Your task to perform on an android device: What is the recent news? Image 0: 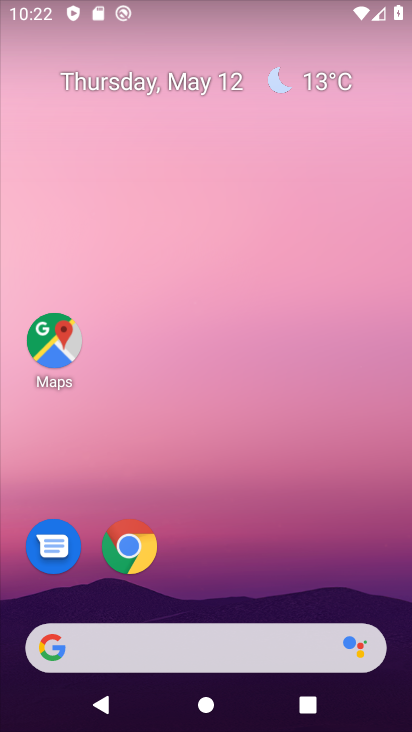
Step 0: drag from (265, 677) to (268, 176)
Your task to perform on an android device: What is the recent news? Image 1: 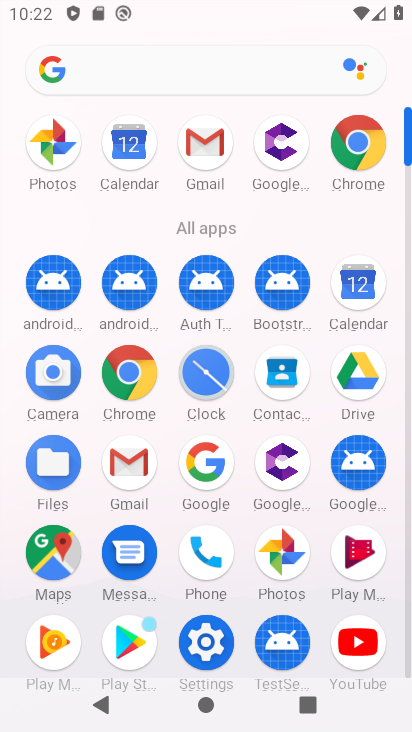
Step 1: click (137, 59)
Your task to perform on an android device: What is the recent news? Image 2: 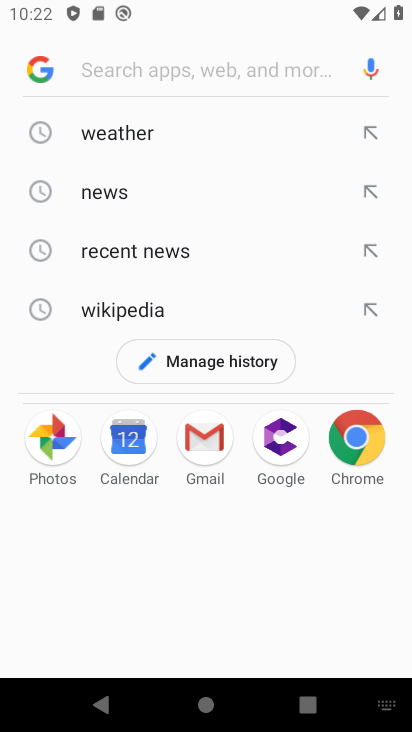
Step 2: click (136, 250)
Your task to perform on an android device: What is the recent news? Image 3: 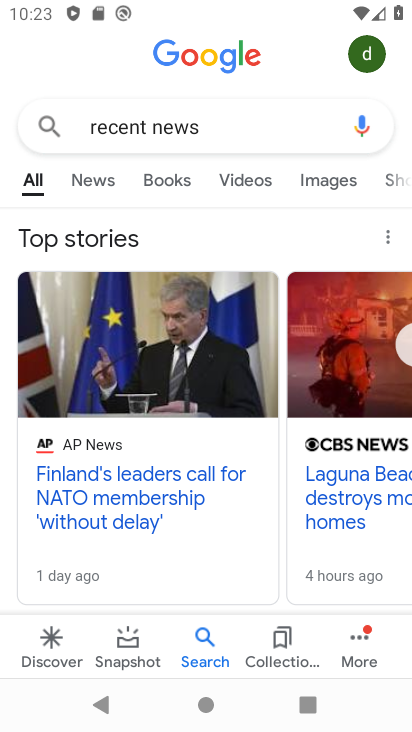
Step 3: task complete